Your task to perform on an android device: turn off smart reply in the gmail app Image 0: 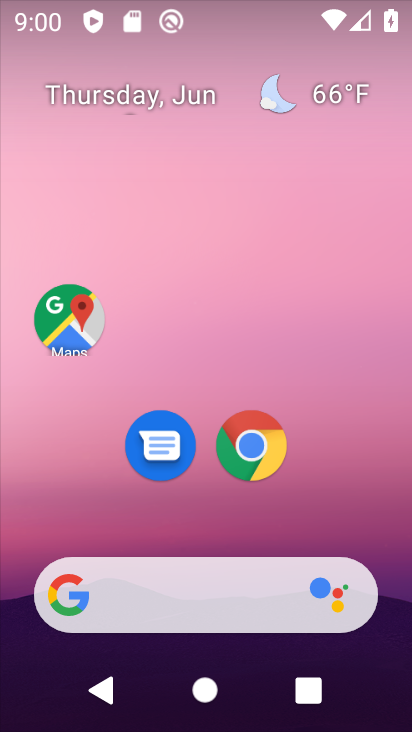
Step 0: drag from (204, 534) to (254, 14)
Your task to perform on an android device: turn off smart reply in the gmail app Image 1: 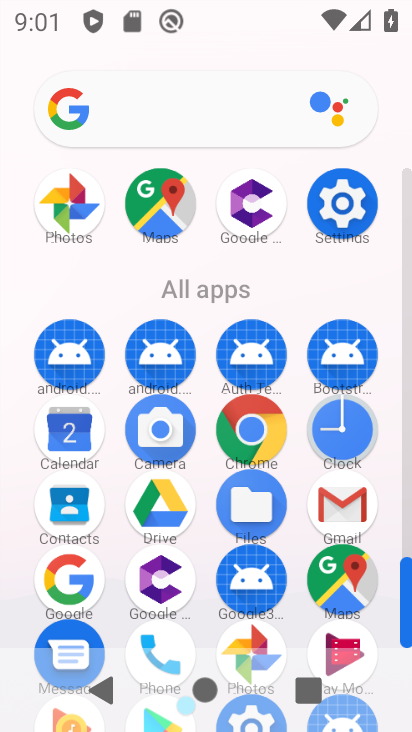
Step 1: click (335, 500)
Your task to perform on an android device: turn off smart reply in the gmail app Image 2: 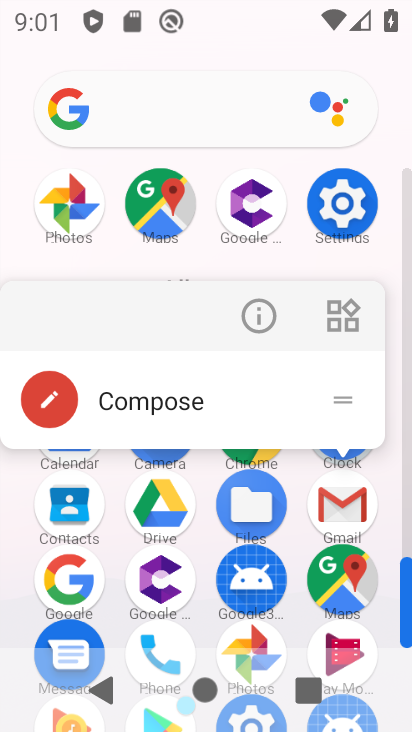
Step 2: click (329, 499)
Your task to perform on an android device: turn off smart reply in the gmail app Image 3: 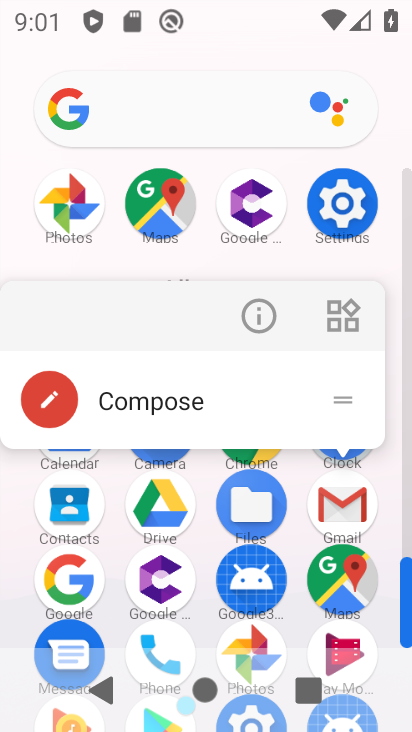
Step 3: click (341, 490)
Your task to perform on an android device: turn off smart reply in the gmail app Image 4: 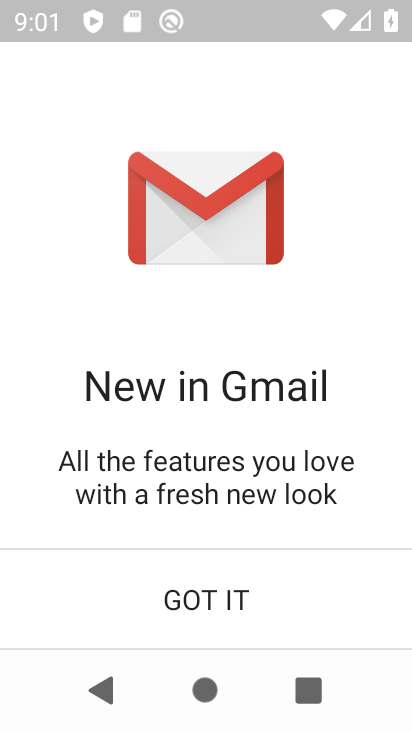
Step 4: click (208, 587)
Your task to perform on an android device: turn off smart reply in the gmail app Image 5: 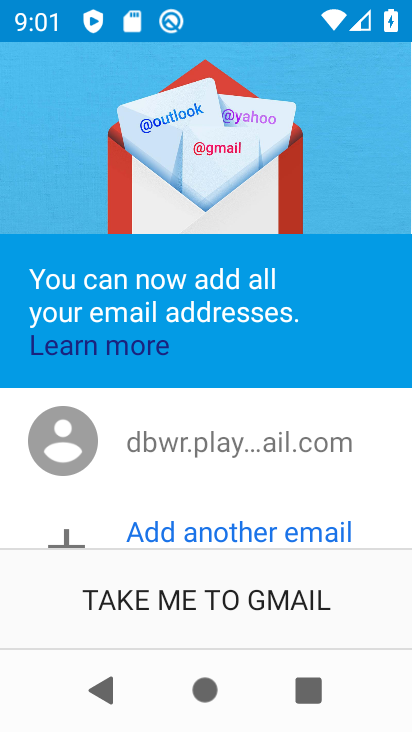
Step 5: click (224, 609)
Your task to perform on an android device: turn off smart reply in the gmail app Image 6: 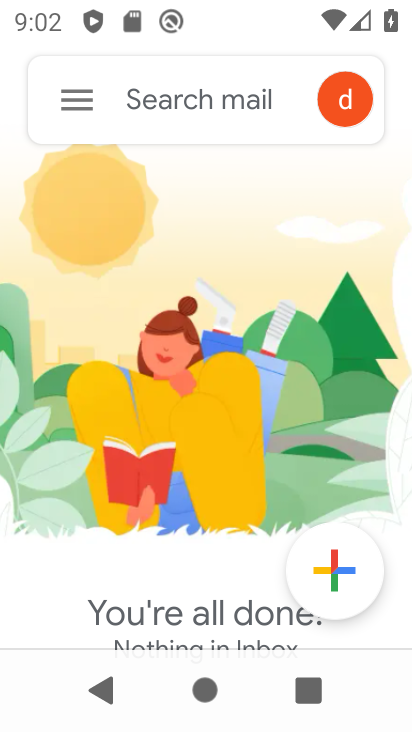
Step 6: click (92, 98)
Your task to perform on an android device: turn off smart reply in the gmail app Image 7: 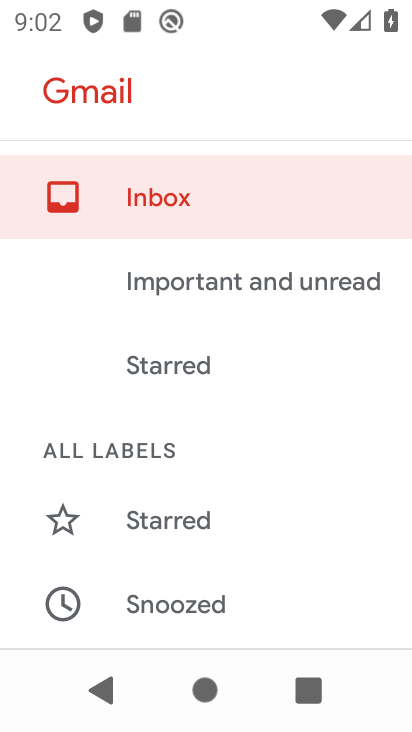
Step 7: drag from (253, 573) to (250, 30)
Your task to perform on an android device: turn off smart reply in the gmail app Image 8: 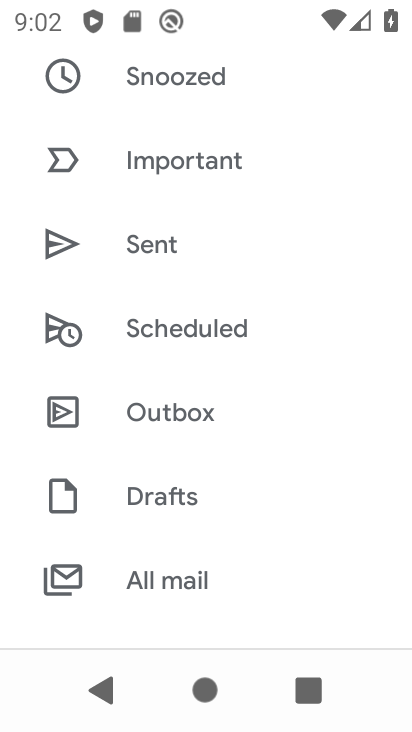
Step 8: drag from (255, 538) to (275, 46)
Your task to perform on an android device: turn off smart reply in the gmail app Image 9: 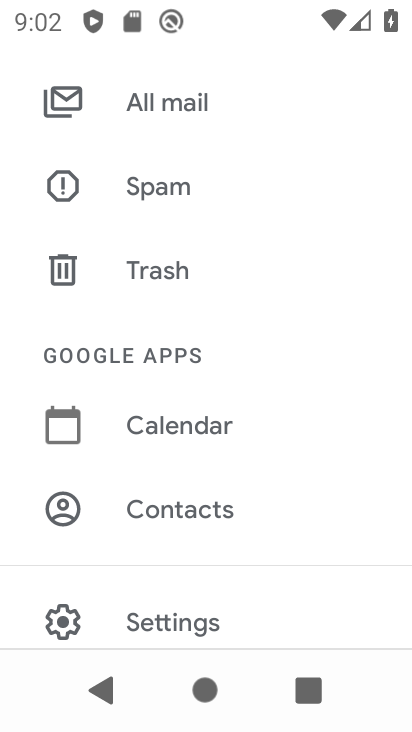
Step 9: click (235, 611)
Your task to perform on an android device: turn off smart reply in the gmail app Image 10: 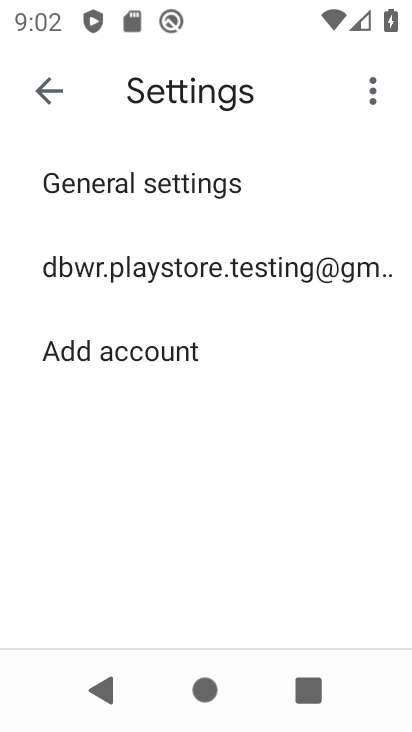
Step 10: click (188, 272)
Your task to perform on an android device: turn off smart reply in the gmail app Image 11: 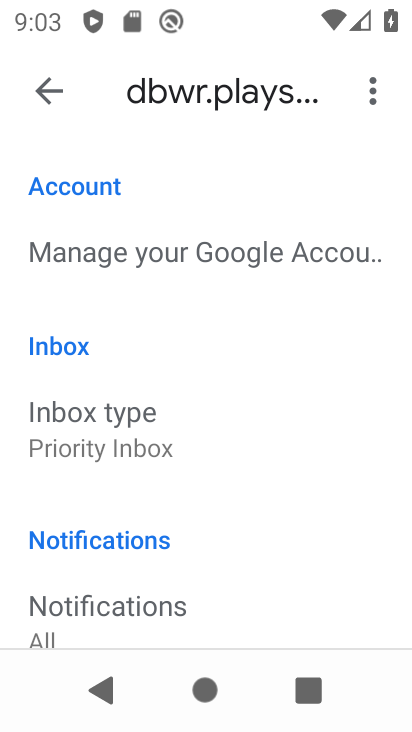
Step 11: drag from (83, 589) to (115, 69)
Your task to perform on an android device: turn off smart reply in the gmail app Image 12: 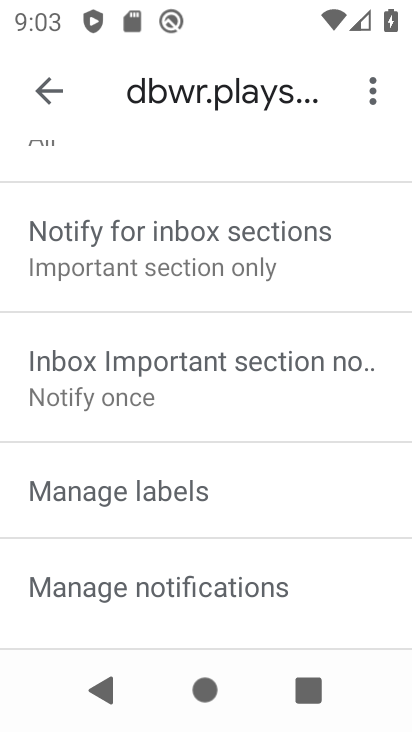
Step 12: drag from (198, 554) to (209, 54)
Your task to perform on an android device: turn off smart reply in the gmail app Image 13: 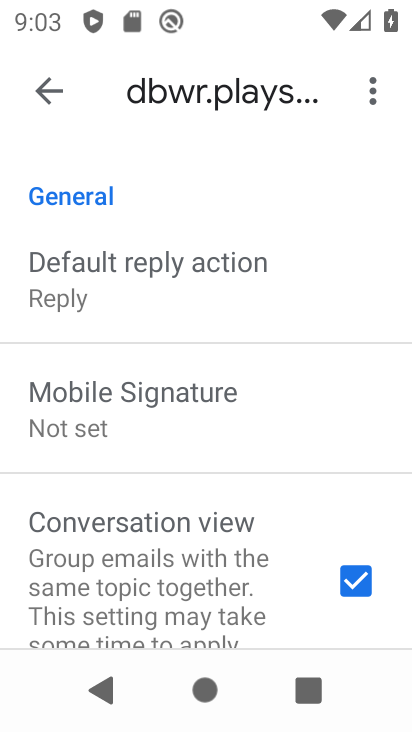
Step 13: drag from (190, 547) to (163, 104)
Your task to perform on an android device: turn off smart reply in the gmail app Image 14: 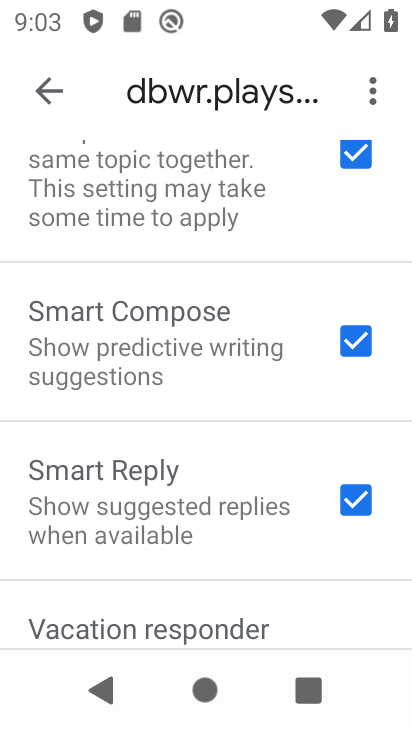
Step 14: drag from (173, 577) to (165, 304)
Your task to perform on an android device: turn off smart reply in the gmail app Image 15: 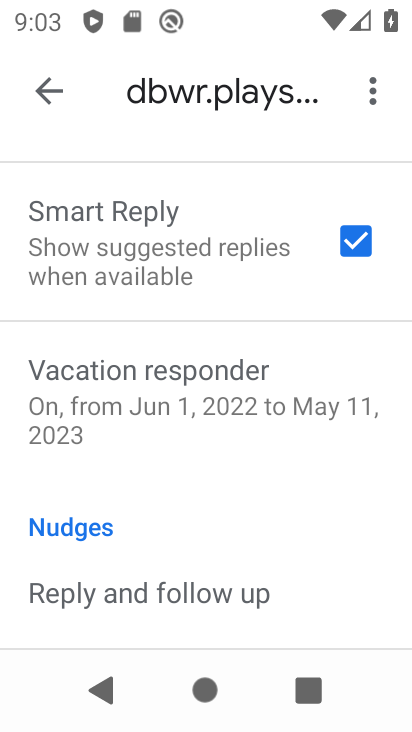
Step 15: click (370, 257)
Your task to perform on an android device: turn off smart reply in the gmail app Image 16: 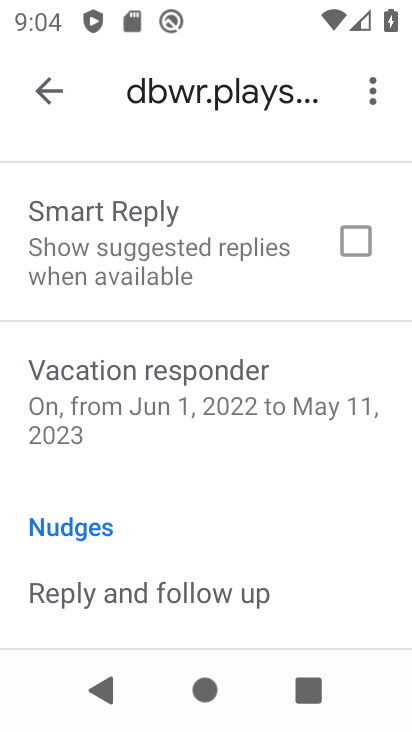
Step 16: task complete